Your task to perform on an android device: Open eBay Image 0: 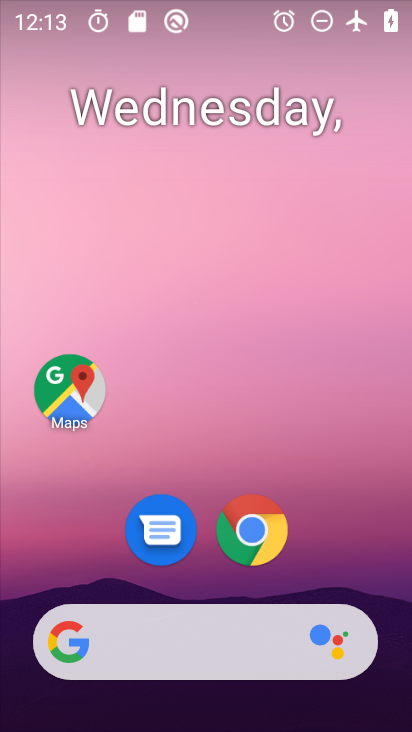
Step 0: click (247, 532)
Your task to perform on an android device: Open eBay Image 1: 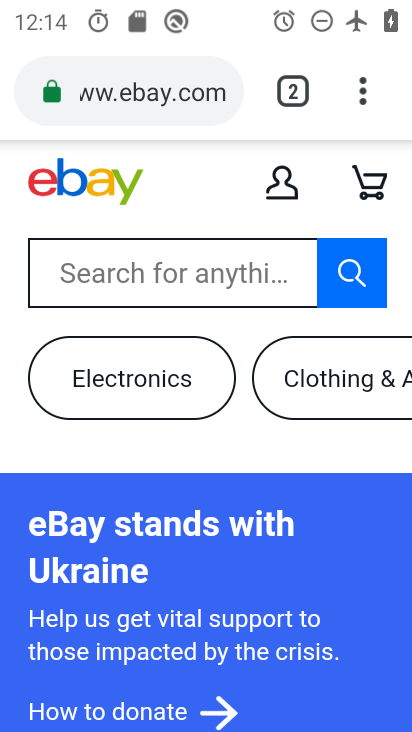
Step 1: task complete